Your task to perform on an android device: open a bookmark in the chrome app Image 0: 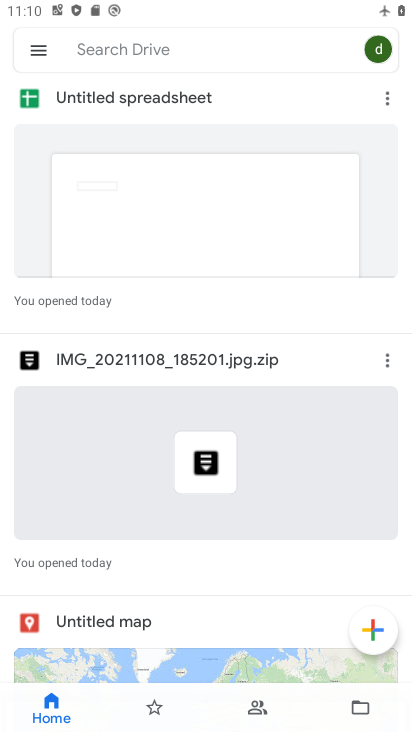
Step 0: press home button
Your task to perform on an android device: open a bookmark in the chrome app Image 1: 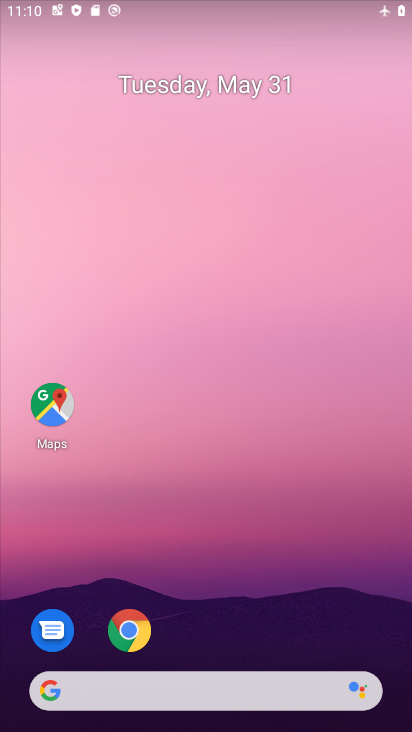
Step 1: drag from (246, 605) to (321, 92)
Your task to perform on an android device: open a bookmark in the chrome app Image 2: 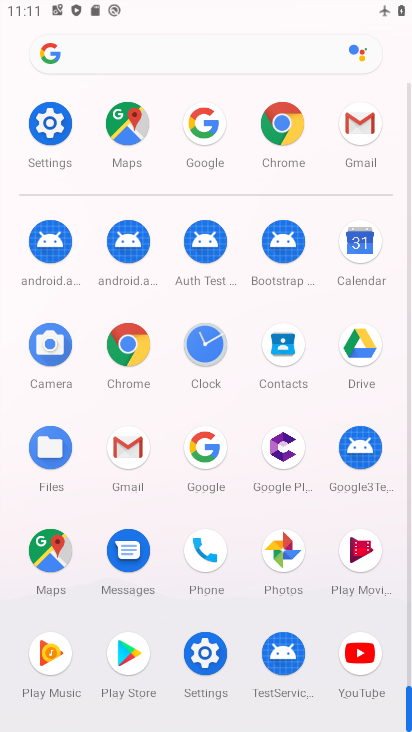
Step 2: click (276, 152)
Your task to perform on an android device: open a bookmark in the chrome app Image 3: 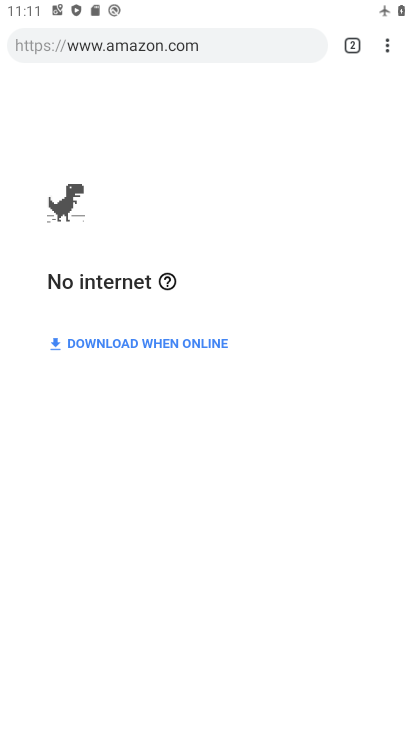
Step 3: click (390, 44)
Your task to perform on an android device: open a bookmark in the chrome app Image 4: 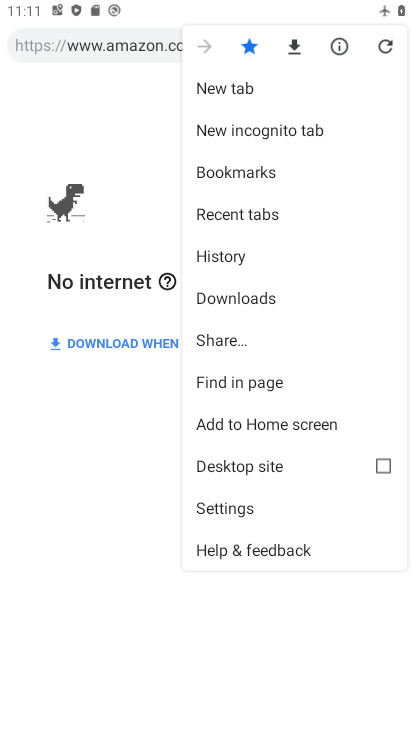
Step 4: click (251, 181)
Your task to perform on an android device: open a bookmark in the chrome app Image 5: 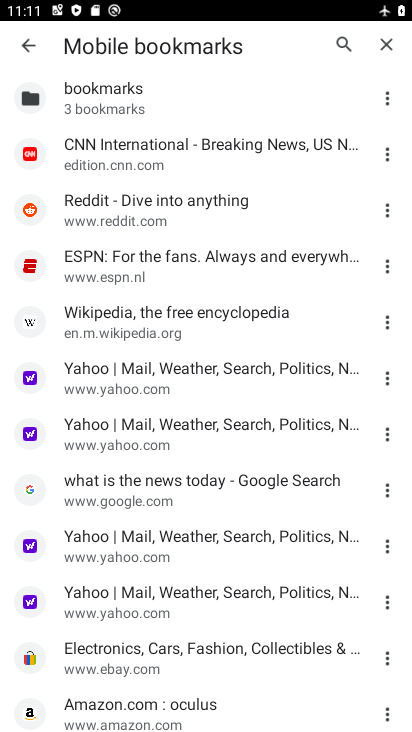
Step 5: click (154, 273)
Your task to perform on an android device: open a bookmark in the chrome app Image 6: 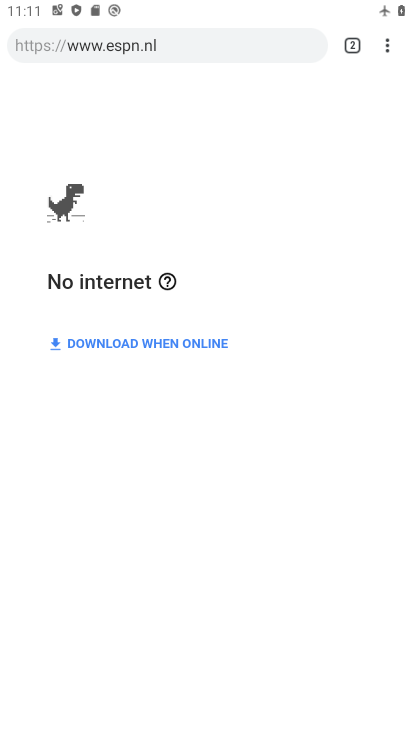
Step 6: task complete